Your task to perform on an android device: turn off priority inbox in the gmail app Image 0: 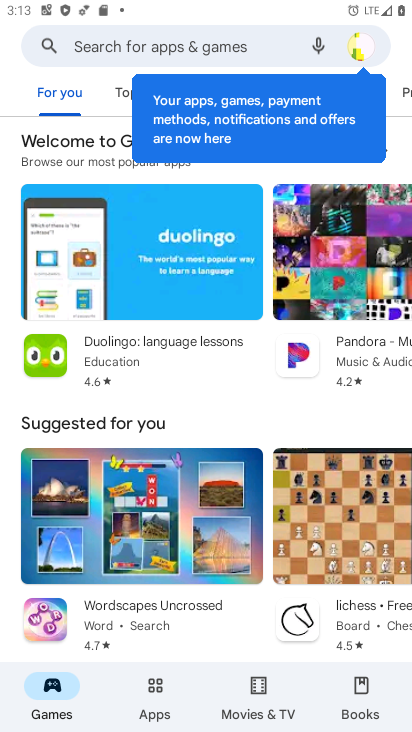
Step 0: press home button
Your task to perform on an android device: turn off priority inbox in the gmail app Image 1: 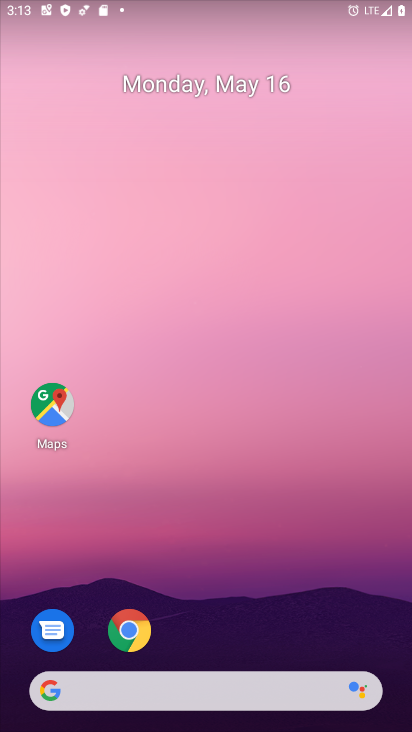
Step 1: drag from (215, 648) to (214, 220)
Your task to perform on an android device: turn off priority inbox in the gmail app Image 2: 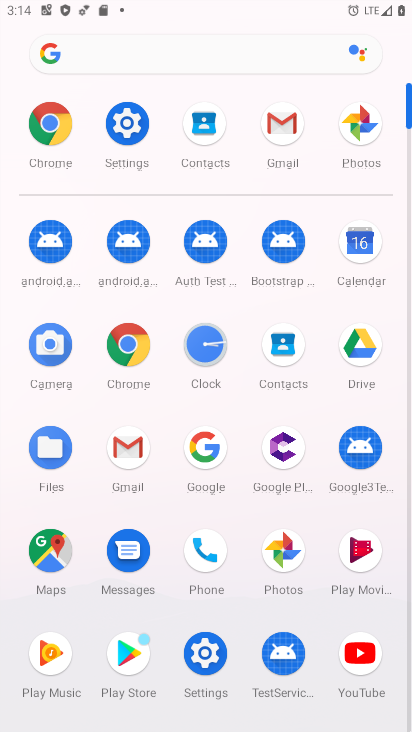
Step 2: click (127, 444)
Your task to perform on an android device: turn off priority inbox in the gmail app Image 3: 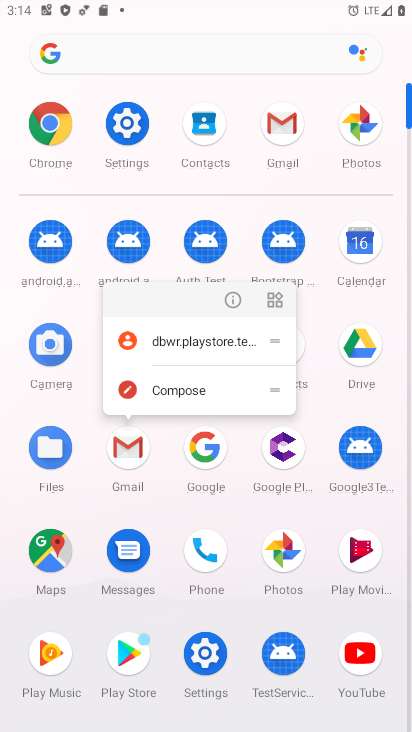
Step 3: click (130, 445)
Your task to perform on an android device: turn off priority inbox in the gmail app Image 4: 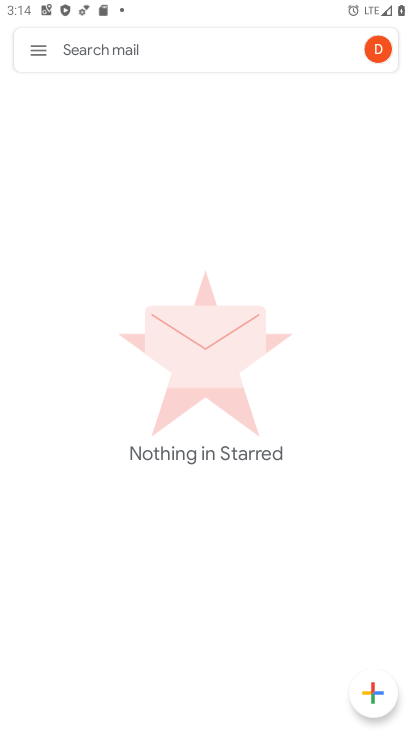
Step 4: click (28, 49)
Your task to perform on an android device: turn off priority inbox in the gmail app Image 5: 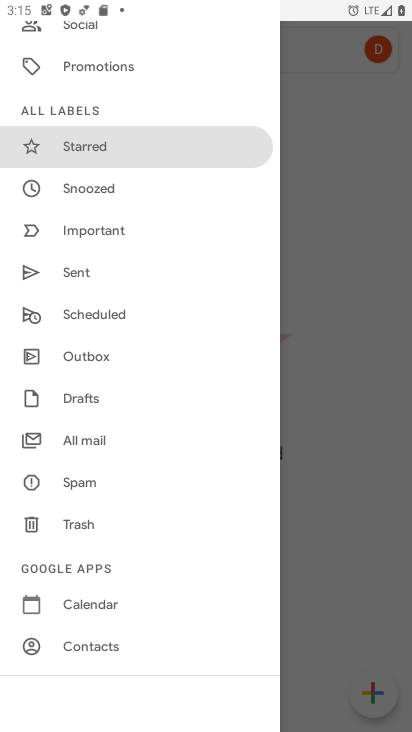
Step 5: drag from (118, 623) to (153, 95)
Your task to perform on an android device: turn off priority inbox in the gmail app Image 6: 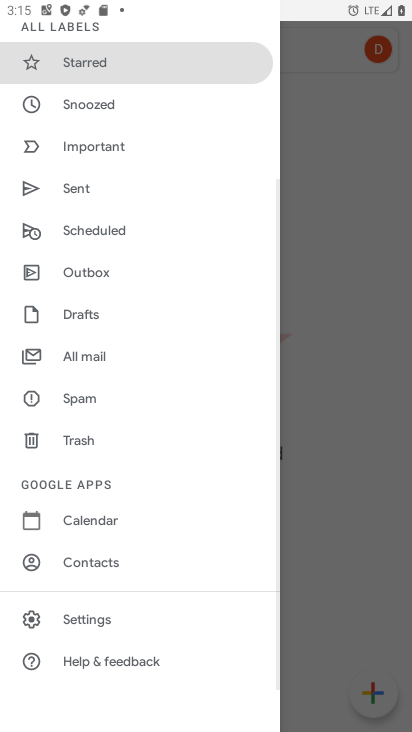
Step 6: click (121, 614)
Your task to perform on an android device: turn off priority inbox in the gmail app Image 7: 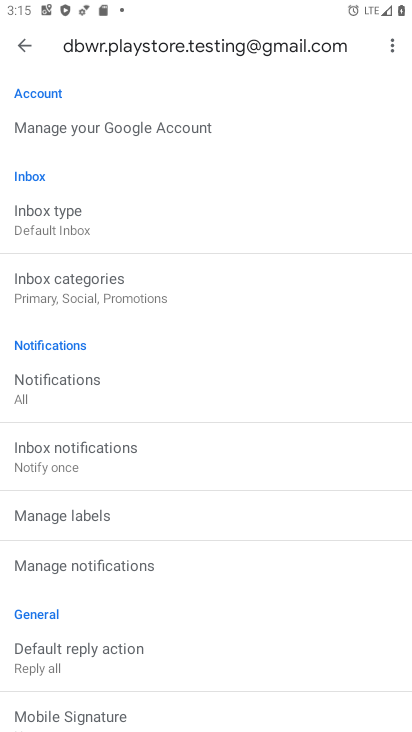
Step 7: click (93, 208)
Your task to perform on an android device: turn off priority inbox in the gmail app Image 8: 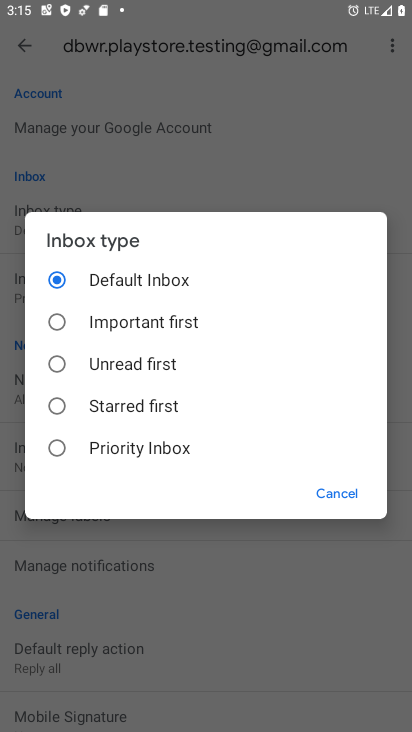
Step 8: click (61, 397)
Your task to perform on an android device: turn off priority inbox in the gmail app Image 9: 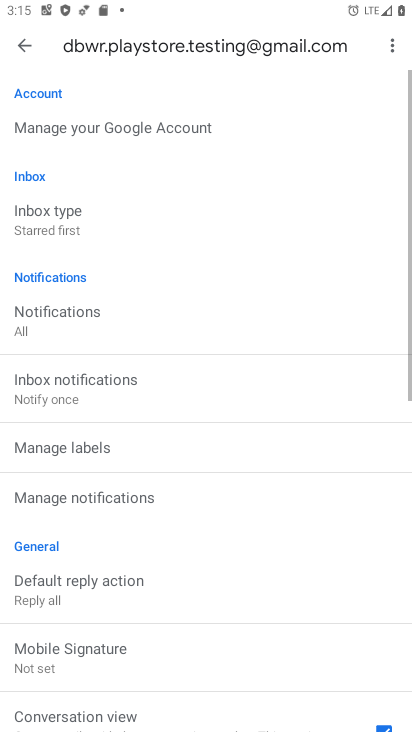
Step 9: task complete